Your task to perform on an android device: change the clock display to digital Image 0: 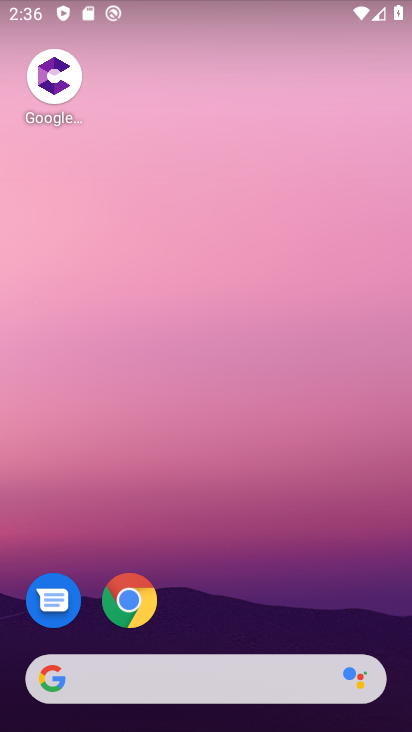
Step 0: drag from (286, 613) to (314, 42)
Your task to perform on an android device: change the clock display to digital Image 1: 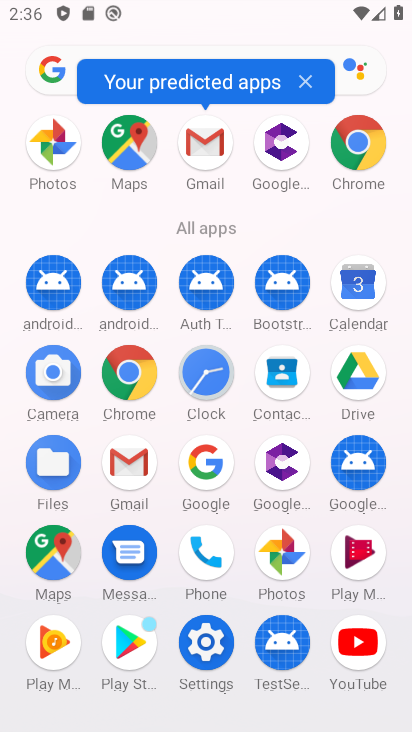
Step 1: click (210, 352)
Your task to perform on an android device: change the clock display to digital Image 2: 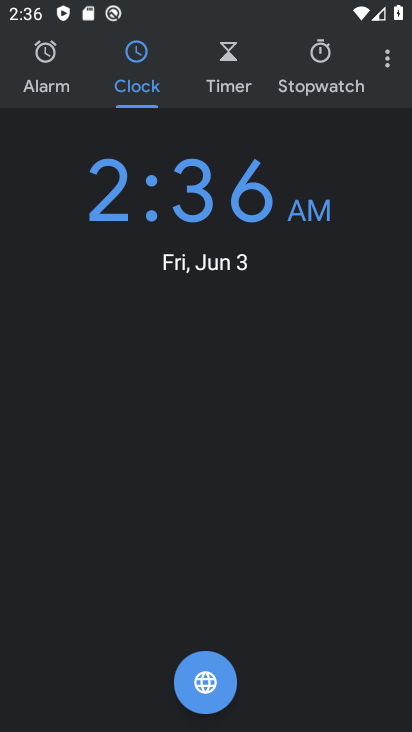
Step 2: click (399, 57)
Your task to perform on an android device: change the clock display to digital Image 3: 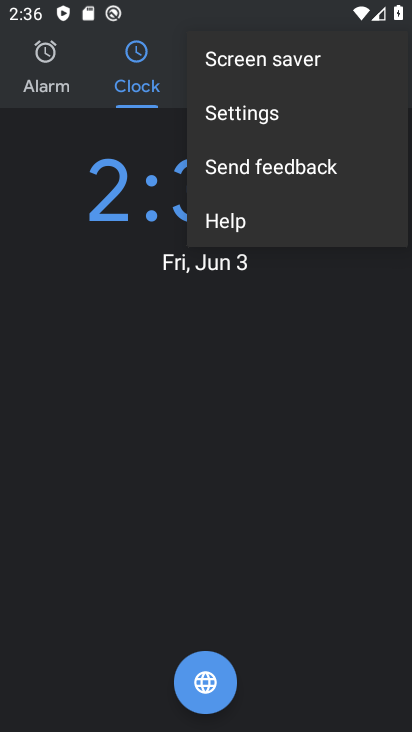
Step 3: click (243, 125)
Your task to perform on an android device: change the clock display to digital Image 4: 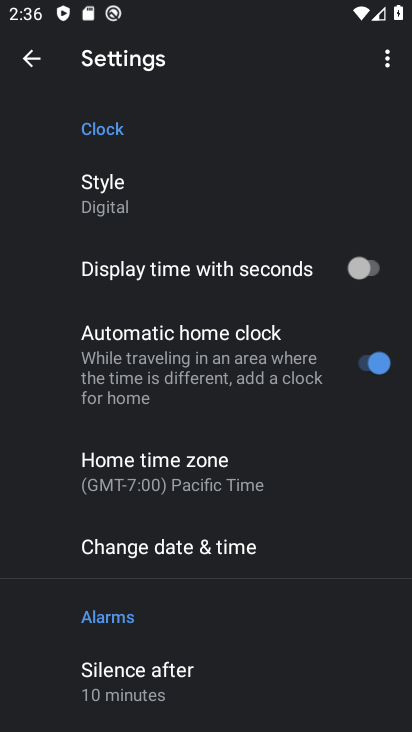
Step 4: task complete